Your task to perform on an android device: add a contact in the contacts app Image 0: 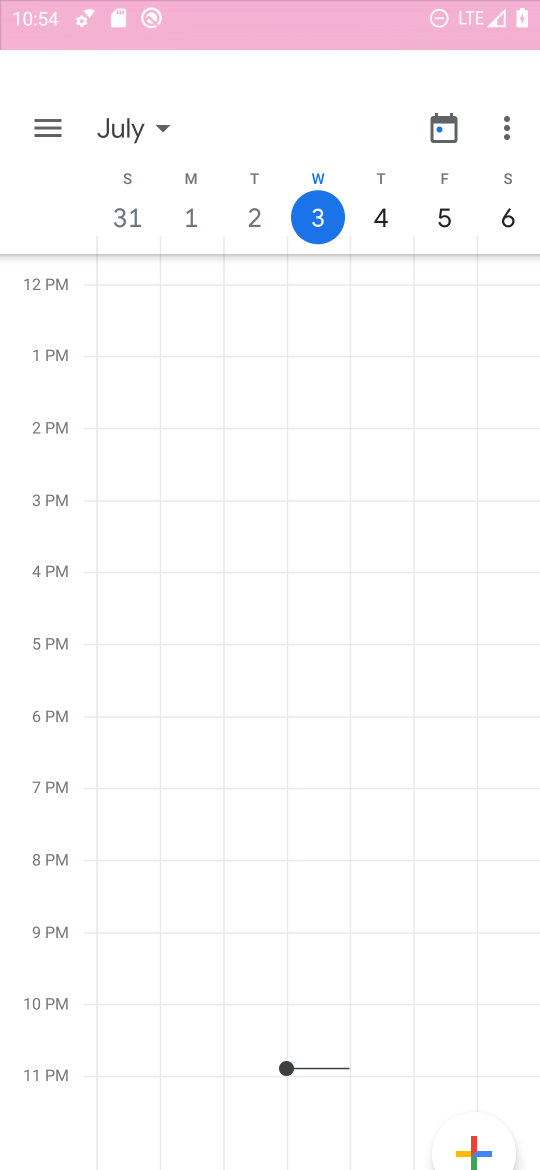
Step 0: drag from (278, 918) to (266, 250)
Your task to perform on an android device: add a contact in the contacts app Image 1: 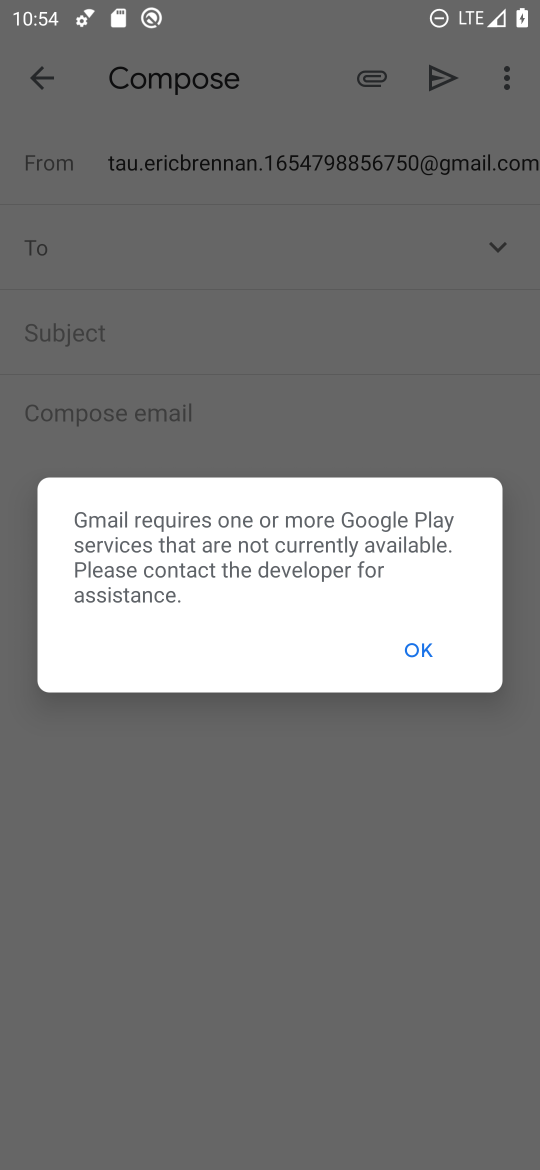
Step 1: press home button
Your task to perform on an android device: add a contact in the contacts app Image 2: 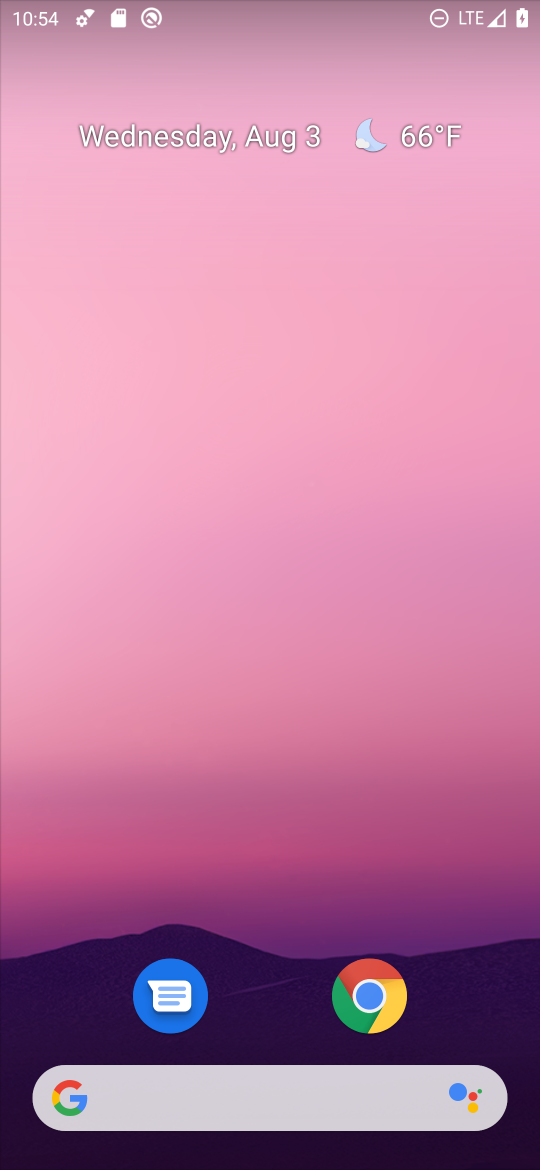
Step 2: drag from (272, 914) to (333, 39)
Your task to perform on an android device: add a contact in the contacts app Image 3: 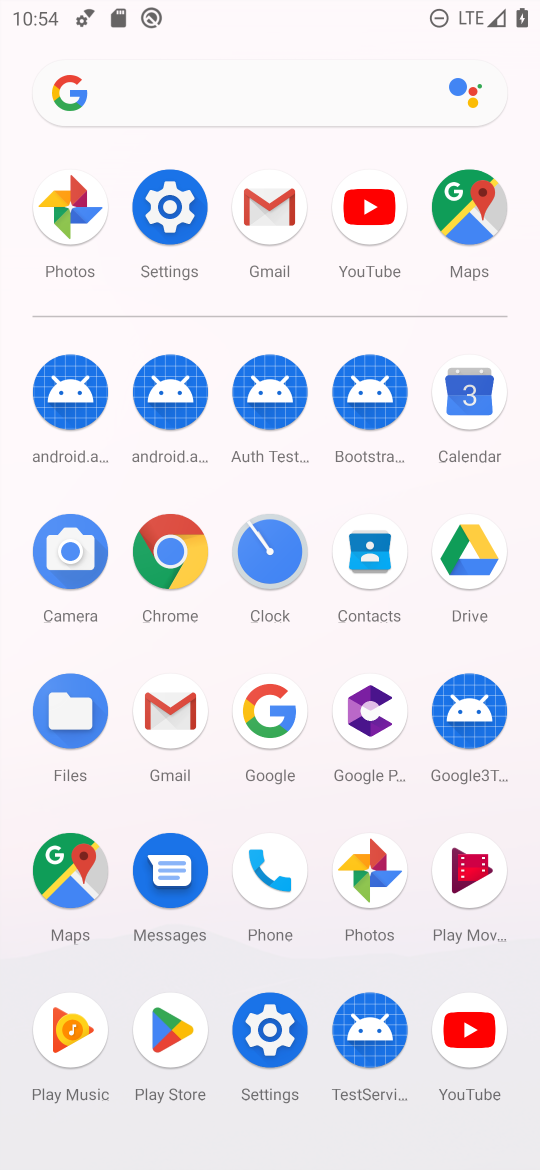
Step 3: click (378, 547)
Your task to perform on an android device: add a contact in the contacts app Image 4: 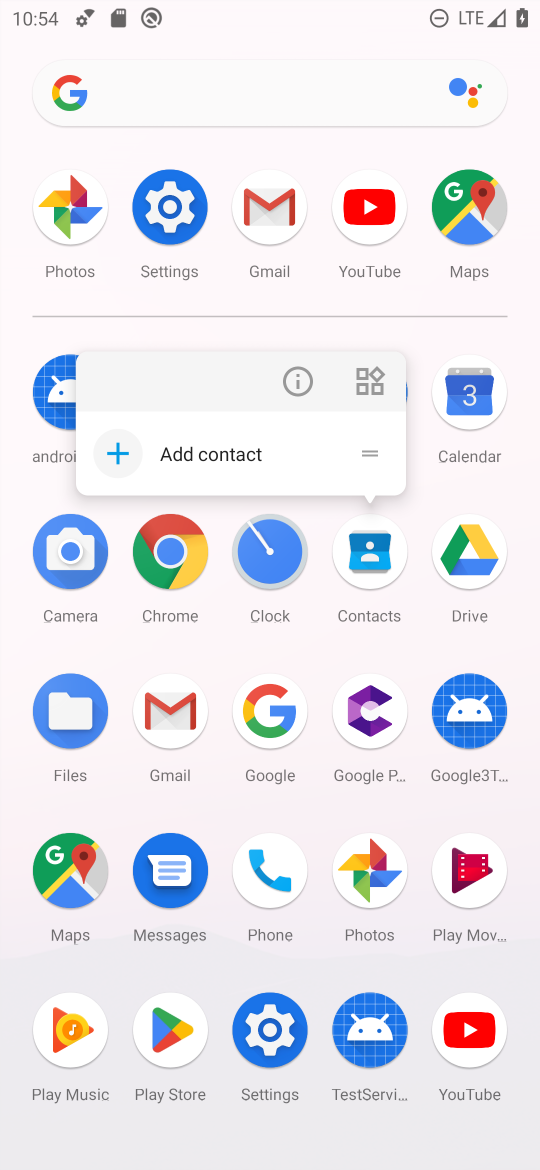
Step 4: click (378, 547)
Your task to perform on an android device: add a contact in the contacts app Image 5: 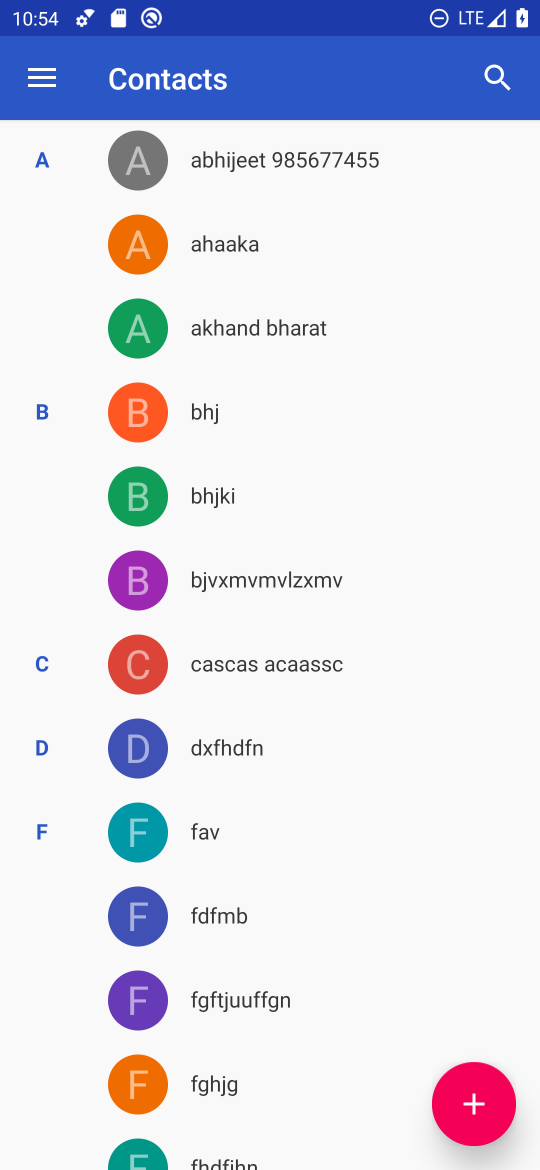
Step 5: click (473, 1098)
Your task to perform on an android device: add a contact in the contacts app Image 6: 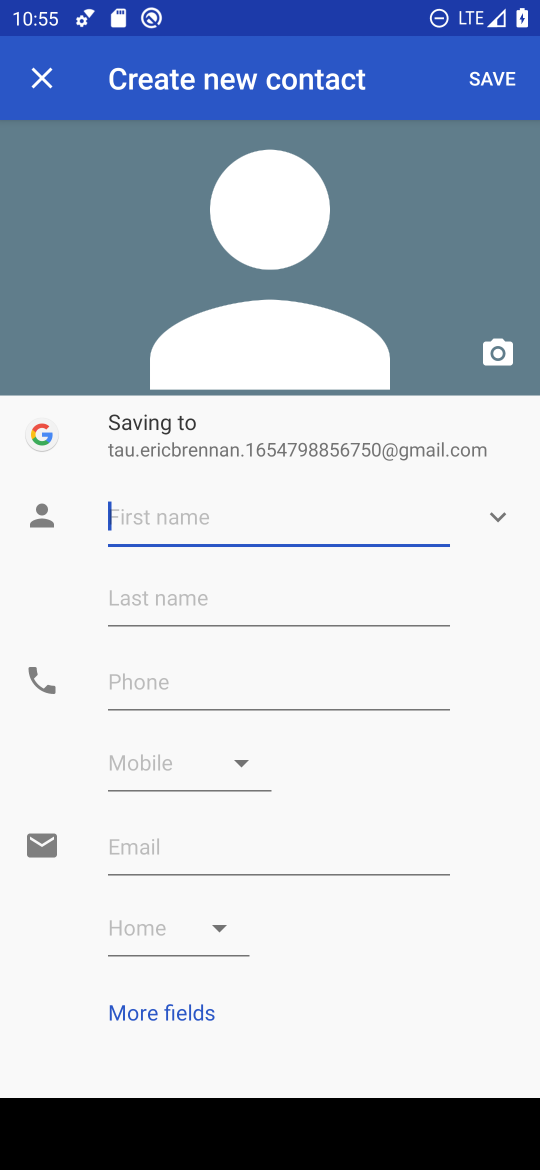
Step 6: type "Shri Ram"
Your task to perform on an android device: add a contact in the contacts app Image 7: 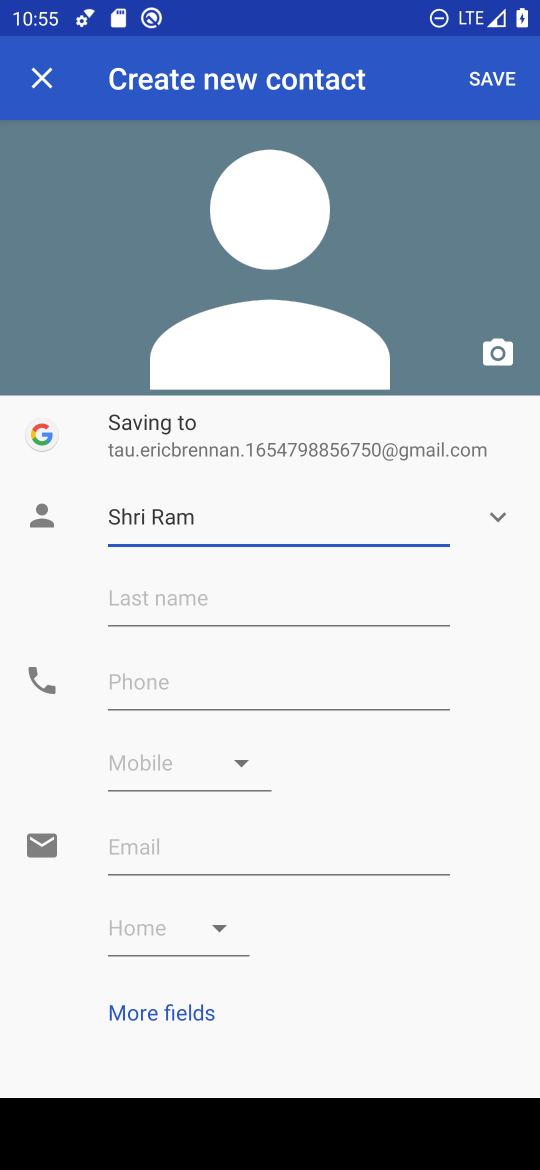
Step 7: click (296, 694)
Your task to perform on an android device: add a contact in the contacts app Image 8: 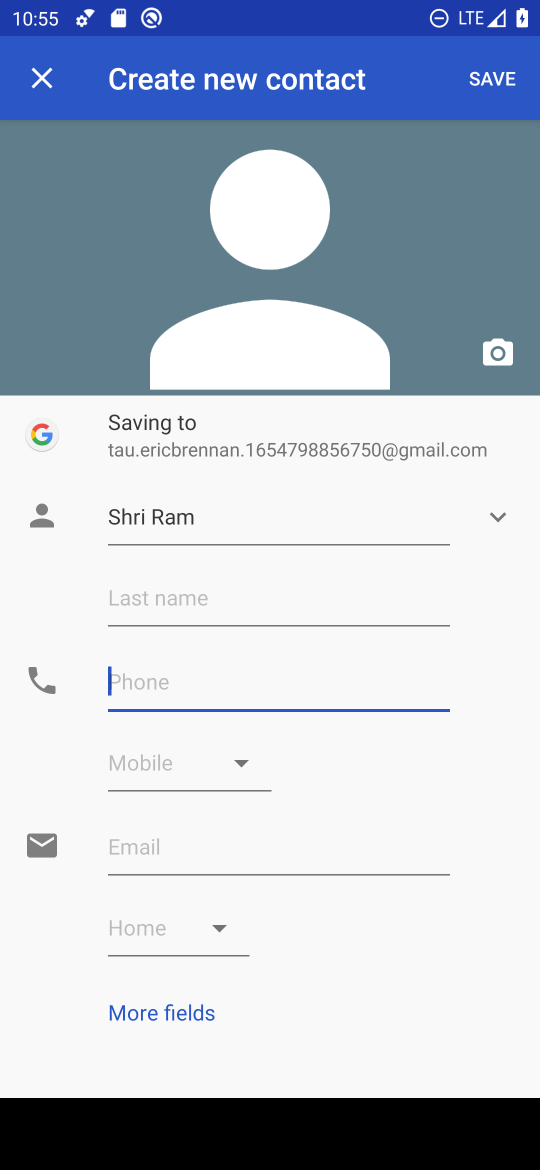
Step 8: type "+919999000001"
Your task to perform on an android device: add a contact in the contacts app Image 9: 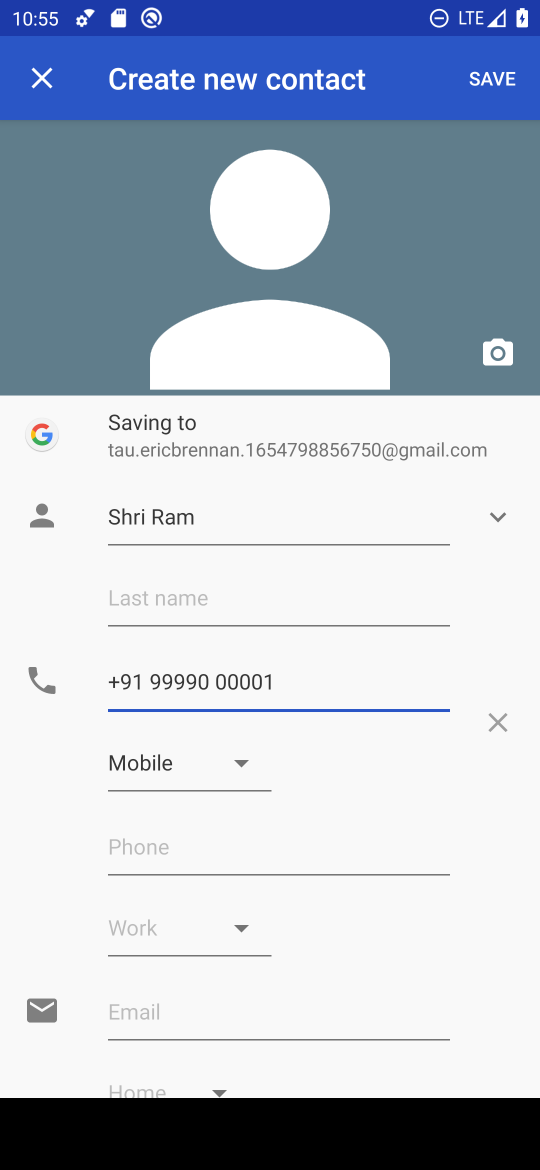
Step 9: click (500, 75)
Your task to perform on an android device: add a contact in the contacts app Image 10: 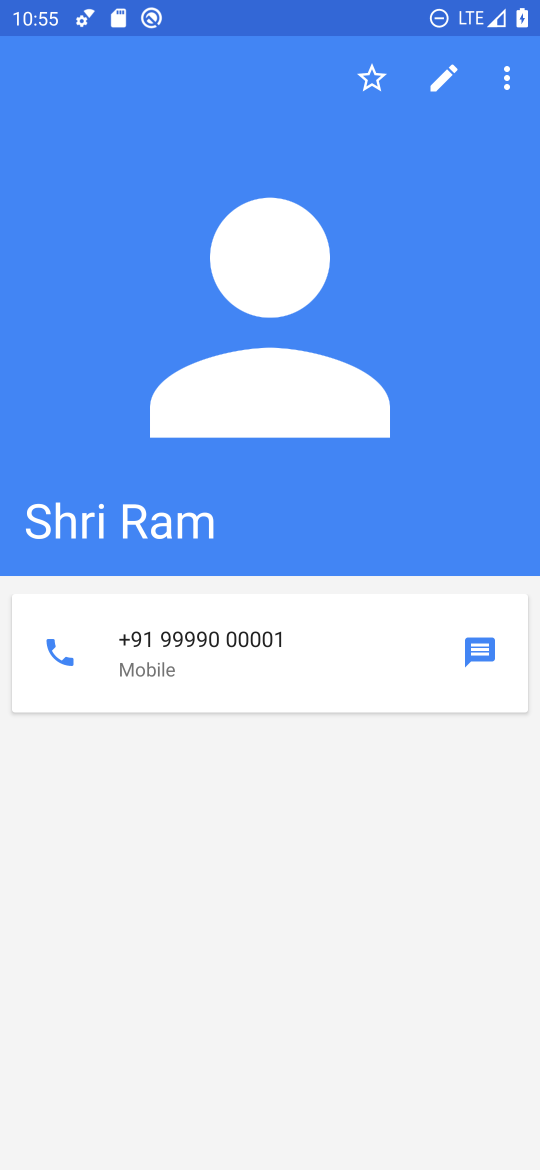
Step 10: task complete